Your task to perform on an android device: Go to Google maps Image 0: 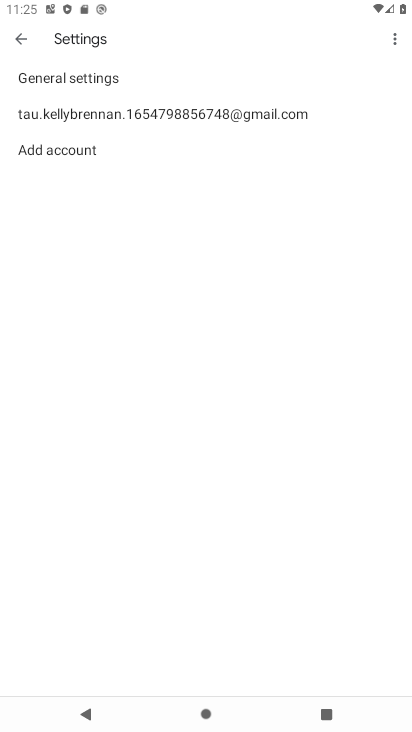
Step 0: press home button
Your task to perform on an android device: Go to Google maps Image 1: 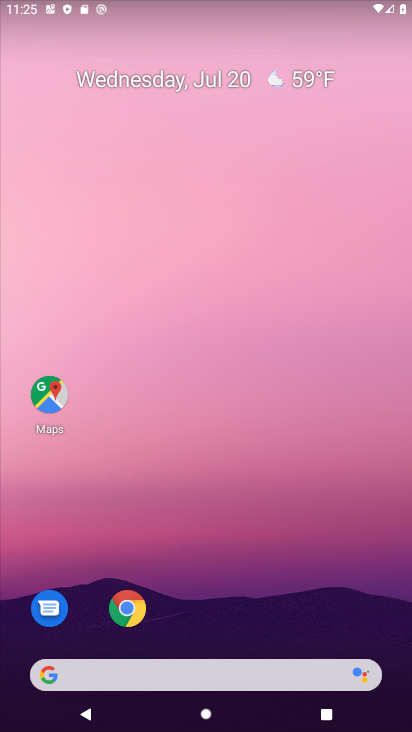
Step 1: drag from (296, 533) to (170, 6)
Your task to perform on an android device: Go to Google maps Image 2: 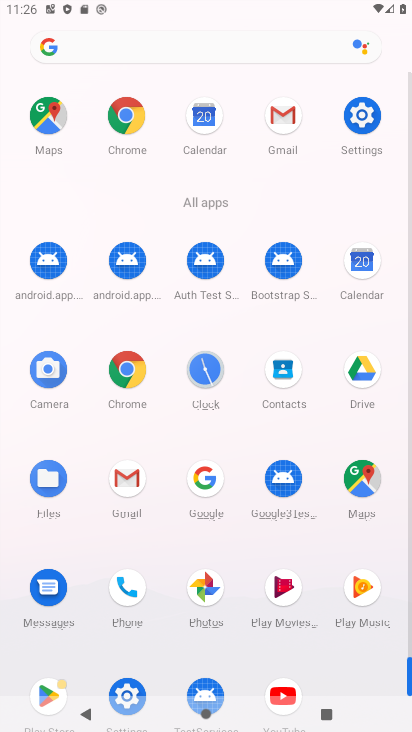
Step 2: click (353, 488)
Your task to perform on an android device: Go to Google maps Image 3: 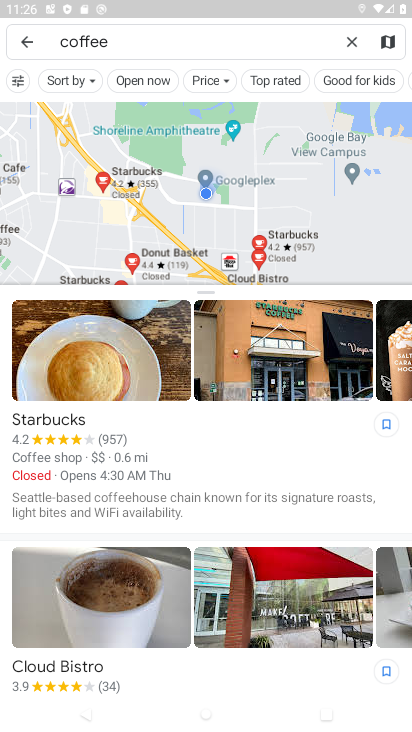
Step 3: task complete